Your task to perform on an android device: star an email in the gmail app Image 0: 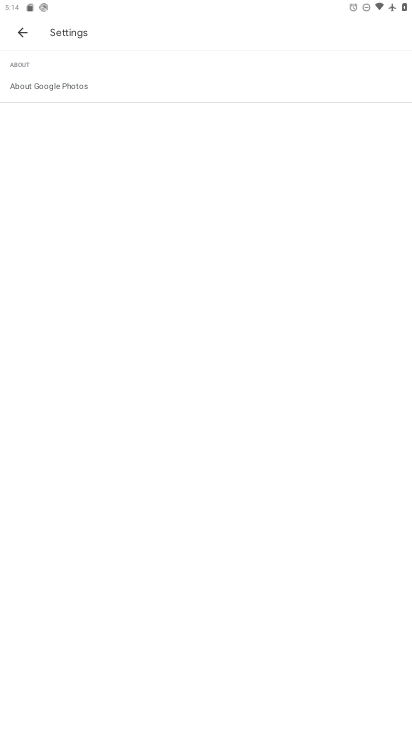
Step 0: press home button
Your task to perform on an android device: star an email in the gmail app Image 1: 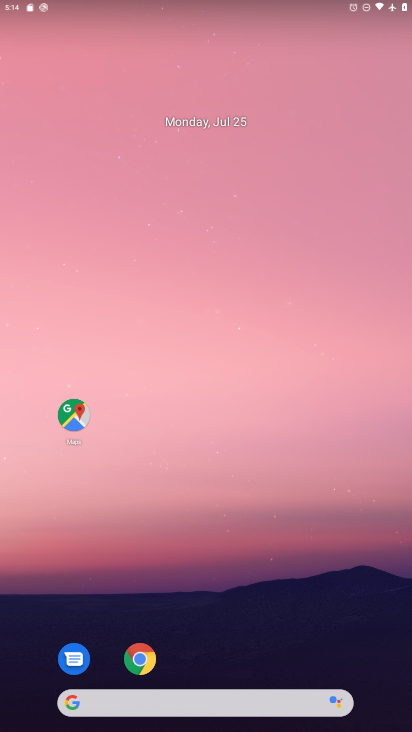
Step 1: drag from (272, 662) to (225, 136)
Your task to perform on an android device: star an email in the gmail app Image 2: 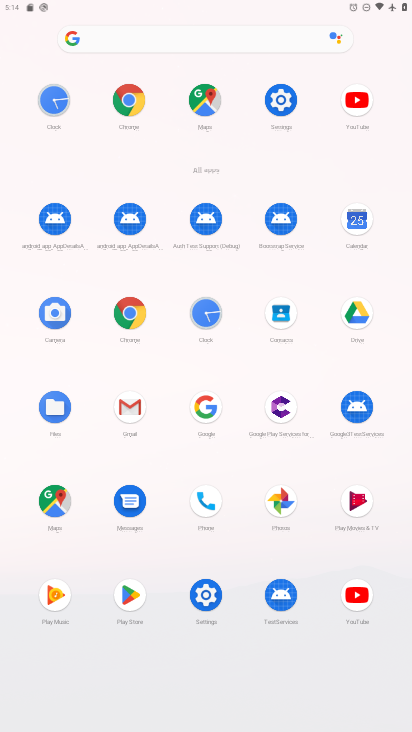
Step 2: click (133, 400)
Your task to perform on an android device: star an email in the gmail app Image 3: 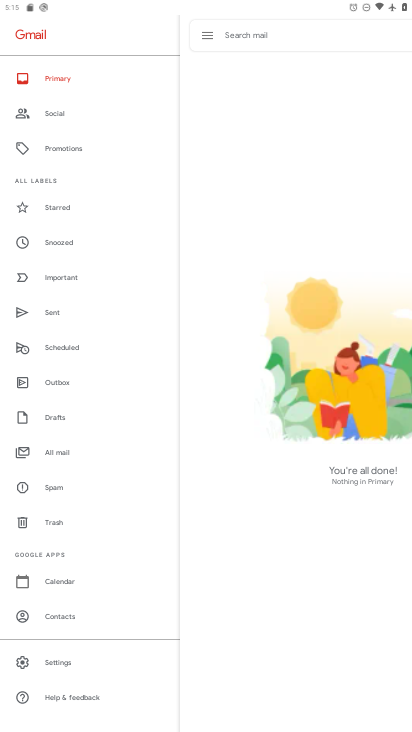
Step 3: task complete